Your task to perform on an android device: find snoozed emails in the gmail app Image 0: 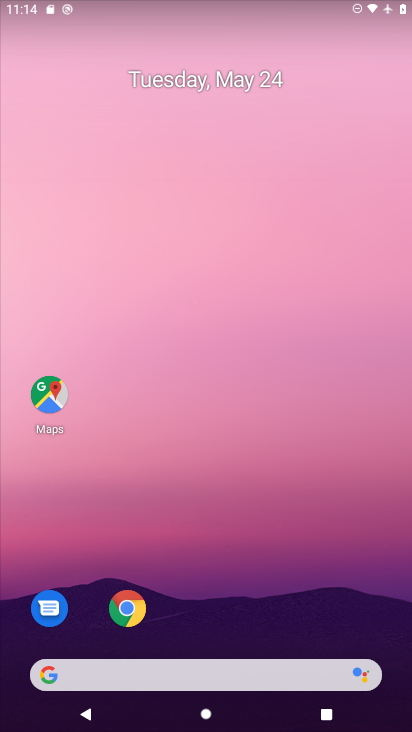
Step 0: drag from (385, 635) to (323, 158)
Your task to perform on an android device: find snoozed emails in the gmail app Image 1: 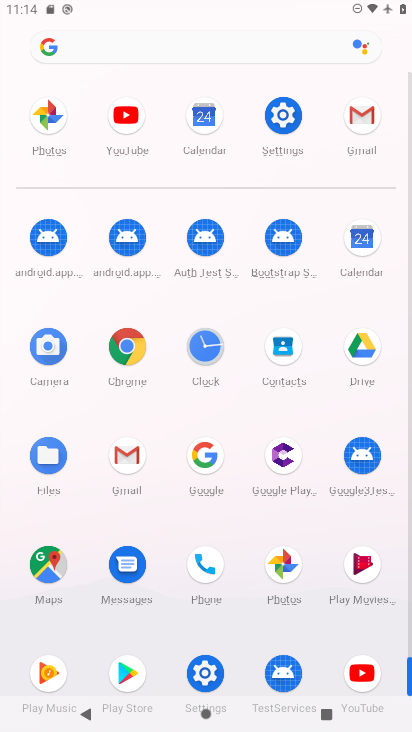
Step 1: click (410, 649)
Your task to perform on an android device: find snoozed emails in the gmail app Image 2: 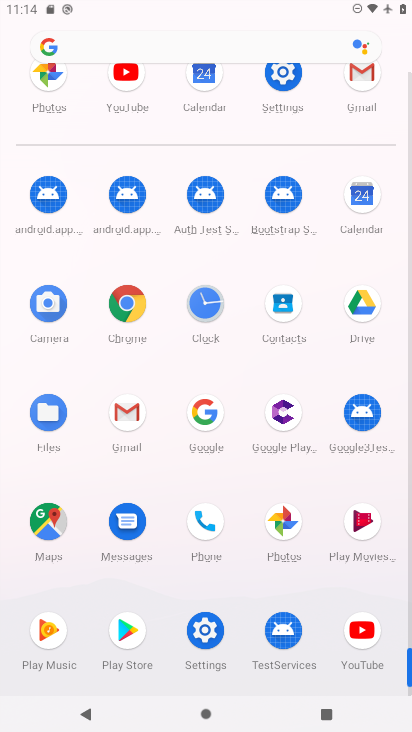
Step 2: click (124, 410)
Your task to perform on an android device: find snoozed emails in the gmail app Image 3: 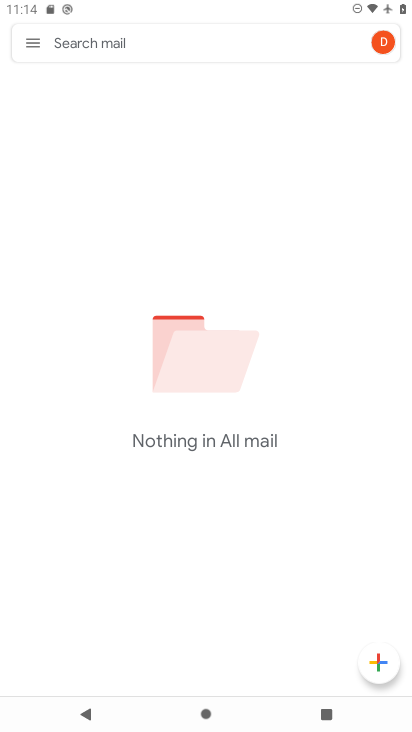
Step 3: click (31, 42)
Your task to perform on an android device: find snoozed emails in the gmail app Image 4: 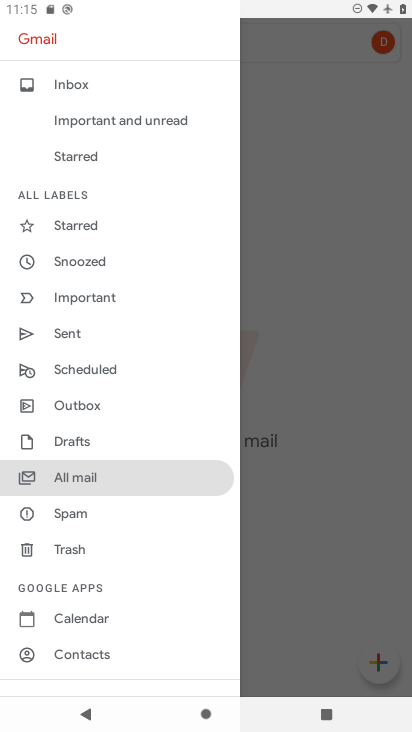
Step 4: click (76, 260)
Your task to perform on an android device: find snoozed emails in the gmail app Image 5: 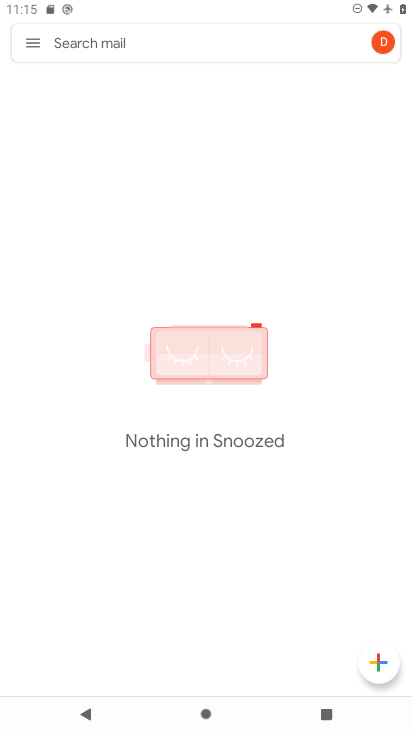
Step 5: task complete